Your task to perform on an android device: open wifi settings Image 0: 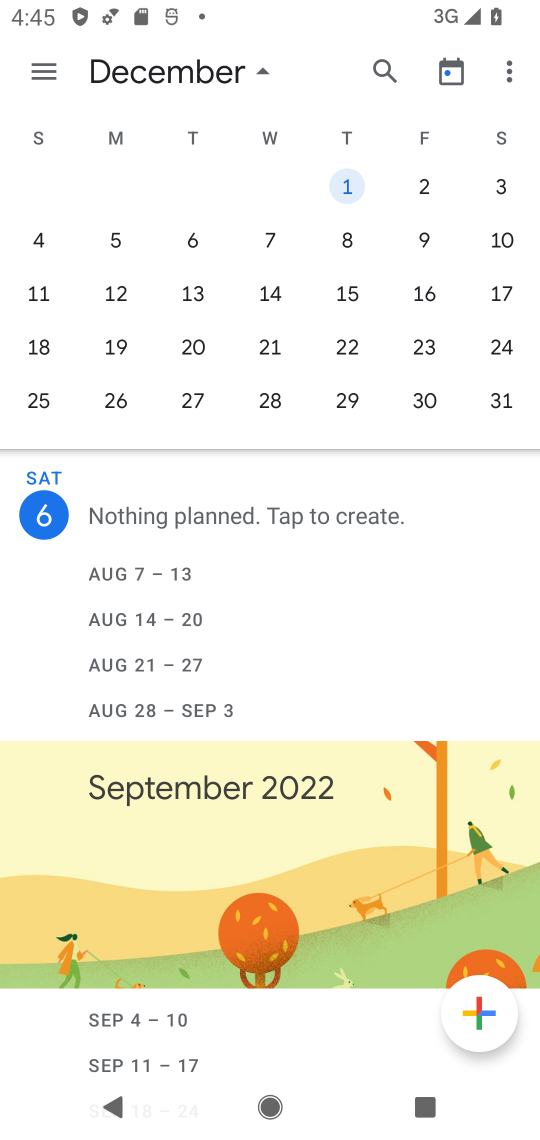
Step 0: press home button
Your task to perform on an android device: open wifi settings Image 1: 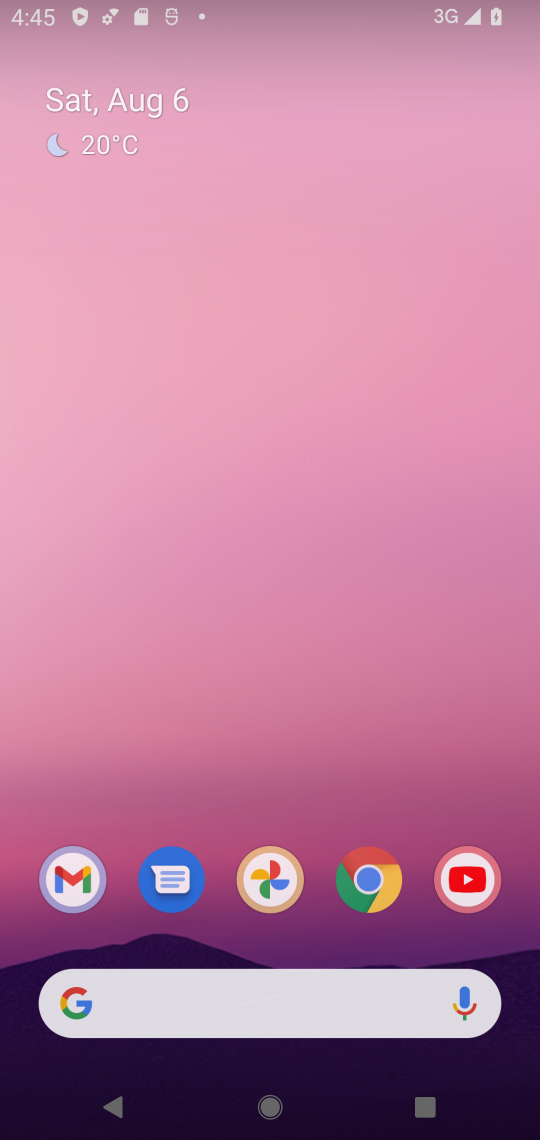
Step 1: drag from (480, 932) to (289, 47)
Your task to perform on an android device: open wifi settings Image 2: 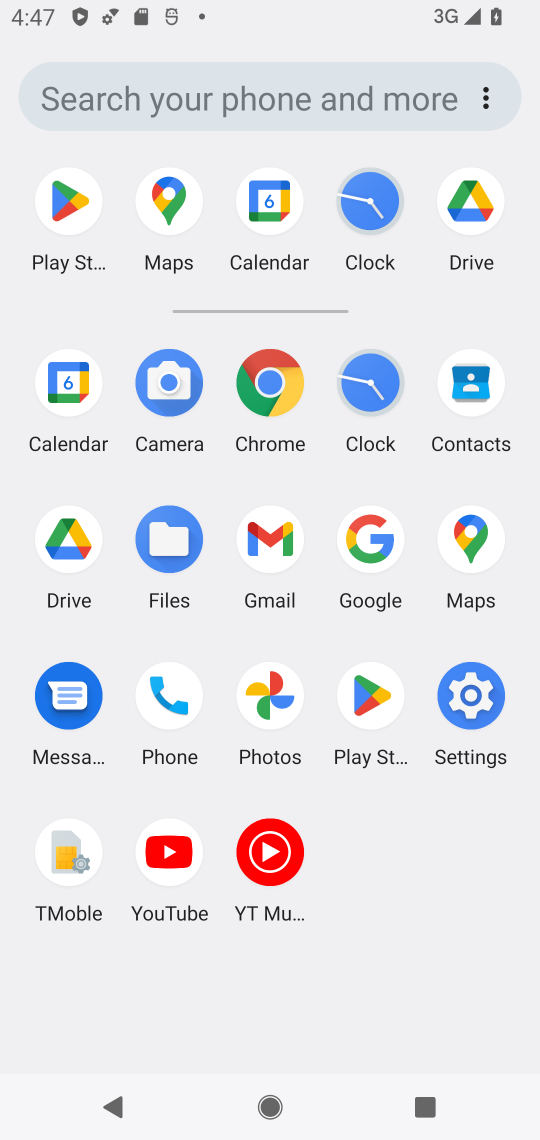
Step 2: click (478, 680)
Your task to perform on an android device: open wifi settings Image 3: 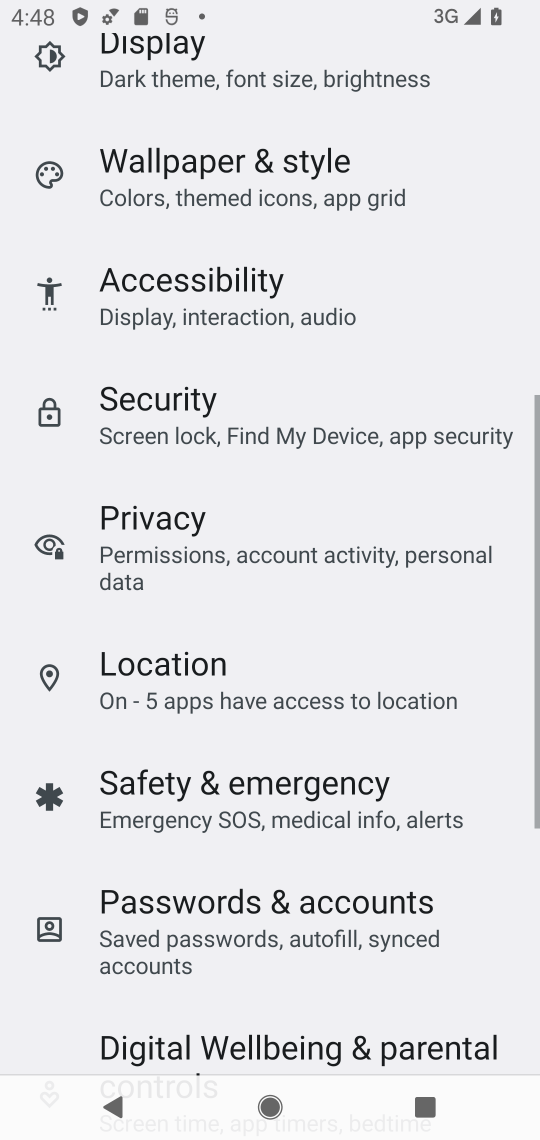
Step 3: drag from (138, 213) to (345, 1118)
Your task to perform on an android device: open wifi settings Image 4: 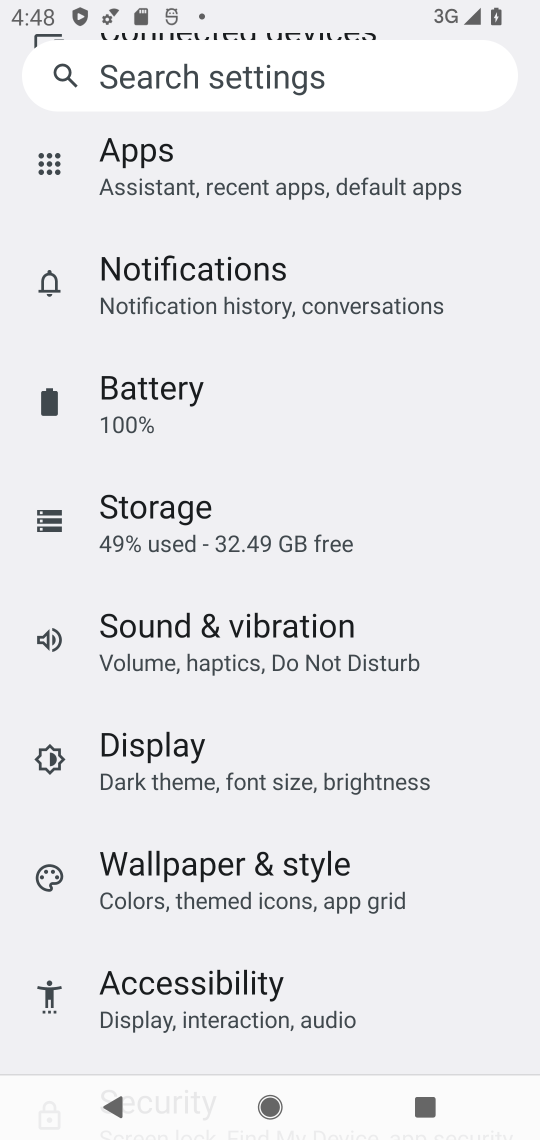
Step 4: drag from (245, 312) to (315, 1115)
Your task to perform on an android device: open wifi settings Image 5: 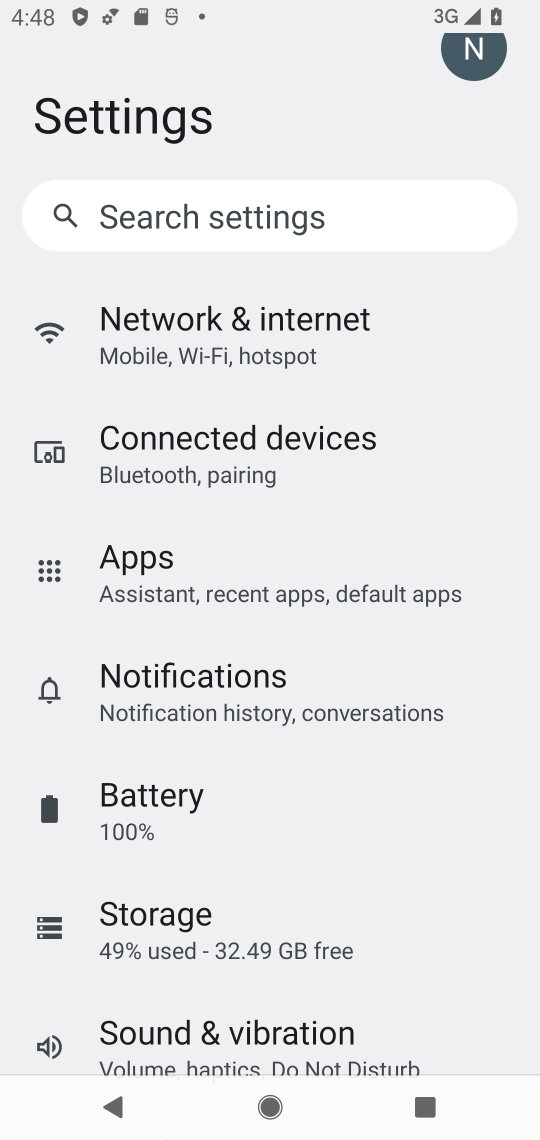
Step 5: click (195, 375)
Your task to perform on an android device: open wifi settings Image 6: 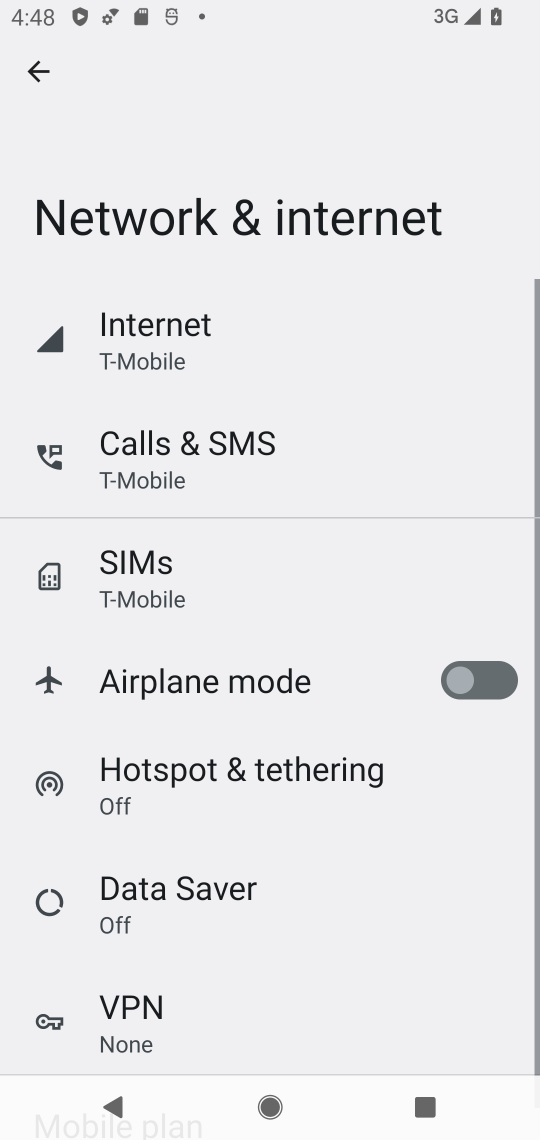
Step 6: click (274, 335)
Your task to perform on an android device: open wifi settings Image 7: 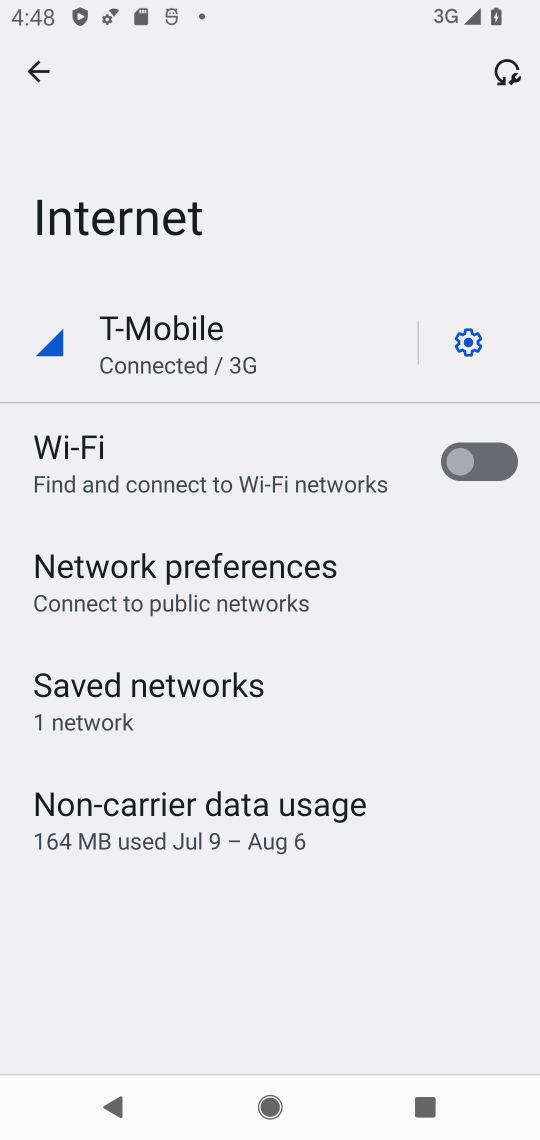
Step 7: task complete